Your task to perform on an android device: check storage Image 0: 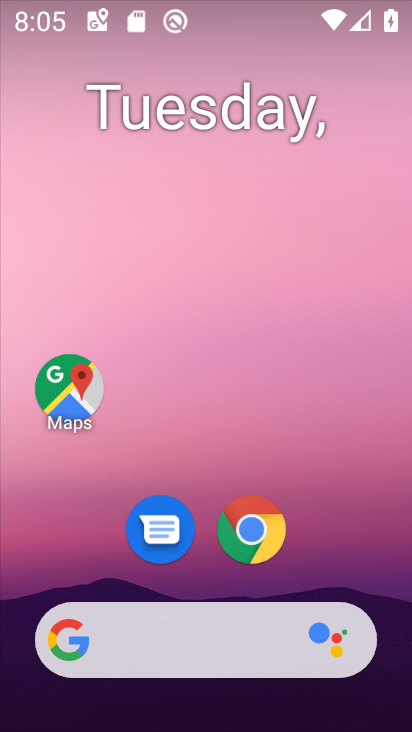
Step 0: drag from (214, 462) to (307, 54)
Your task to perform on an android device: check storage Image 1: 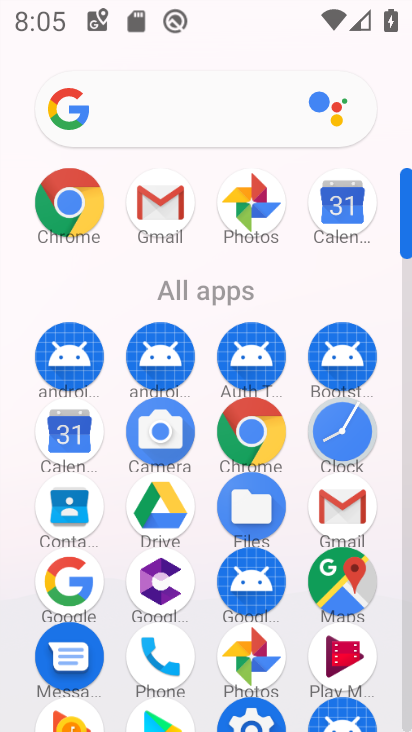
Step 1: click (248, 728)
Your task to perform on an android device: check storage Image 2: 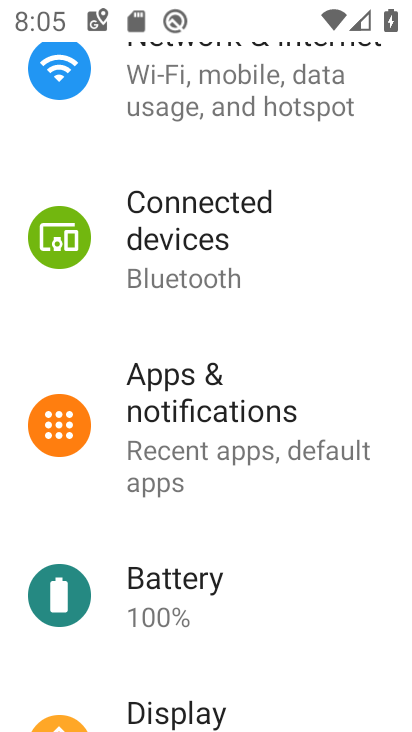
Step 2: drag from (163, 623) to (262, 80)
Your task to perform on an android device: check storage Image 3: 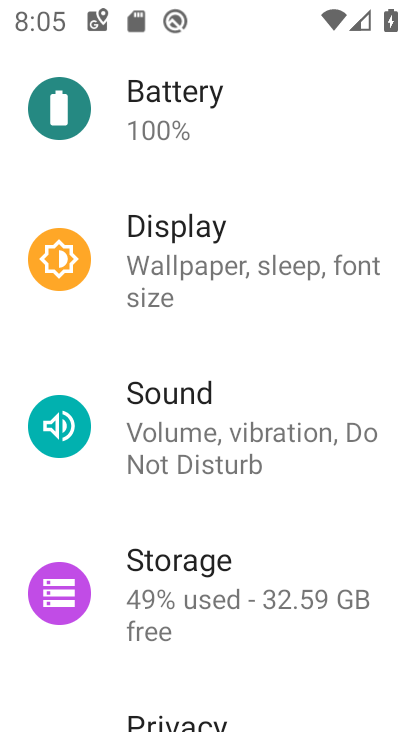
Step 3: click (168, 578)
Your task to perform on an android device: check storage Image 4: 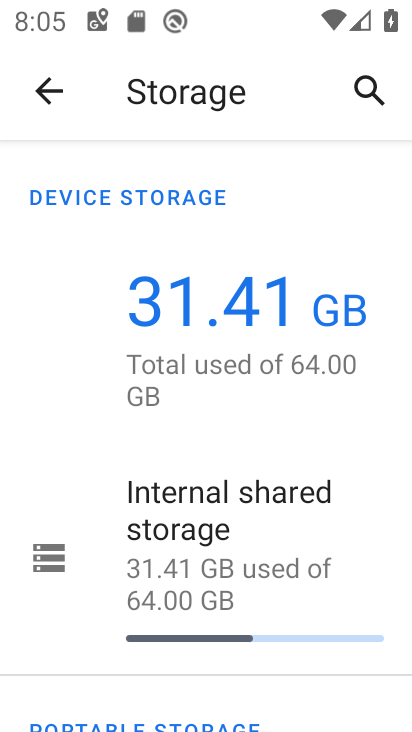
Step 4: task complete